Your task to perform on an android device: Search for seafood restaurants on Google Maps Image 0: 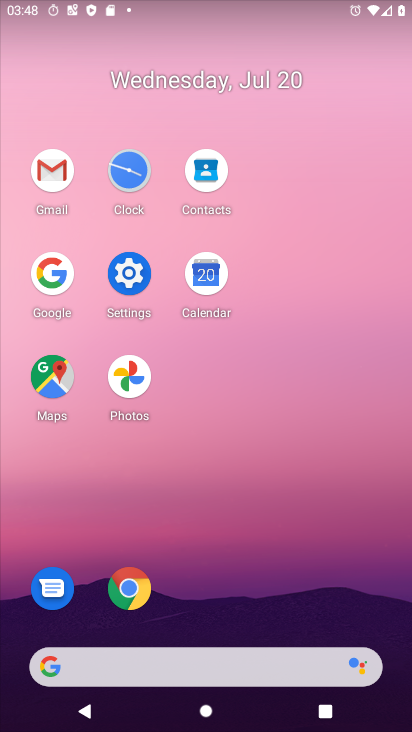
Step 0: click (55, 396)
Your task to perform on an android device: Search for seafood restaurants on Google Maps Image 1: 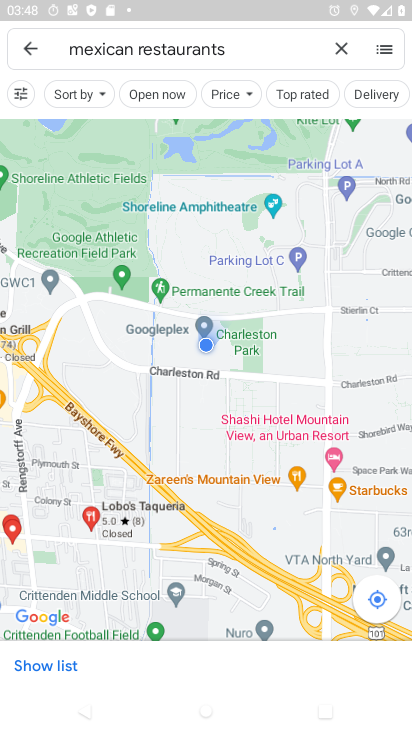
Step 1: click (347, 42)
Your task to perform on an android device: Search for seafood restaurants on Google Maps Image 2: 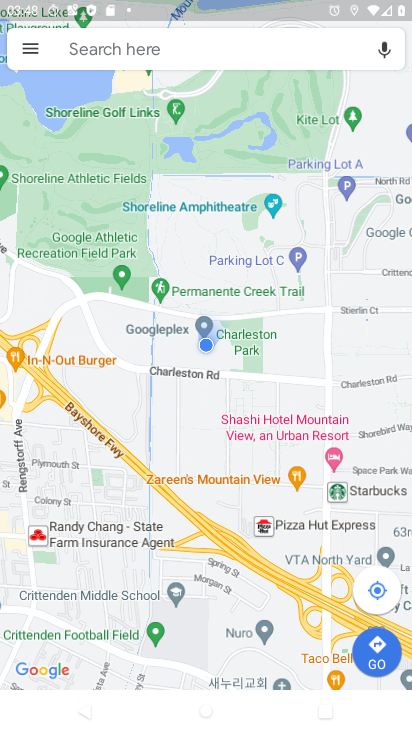
Step 2: click (281, 45)
Your task to perform on an android device: Search for seafood restaurants on Google Maps Image 3: 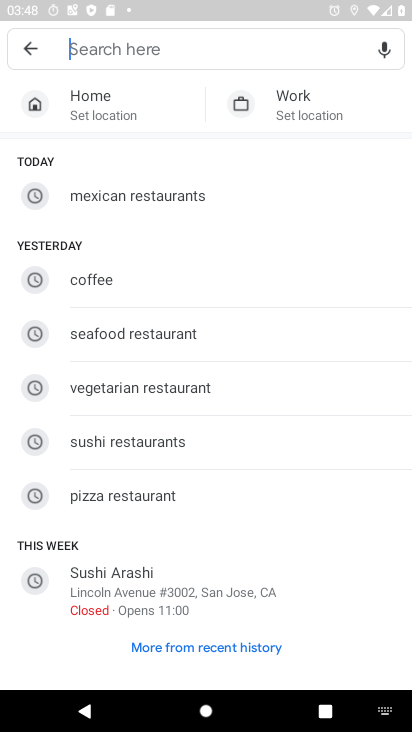
Step 3: click (176, 332)
Your task to perform on an android device: Search for seafood restaurants on Google Maps Image 4: 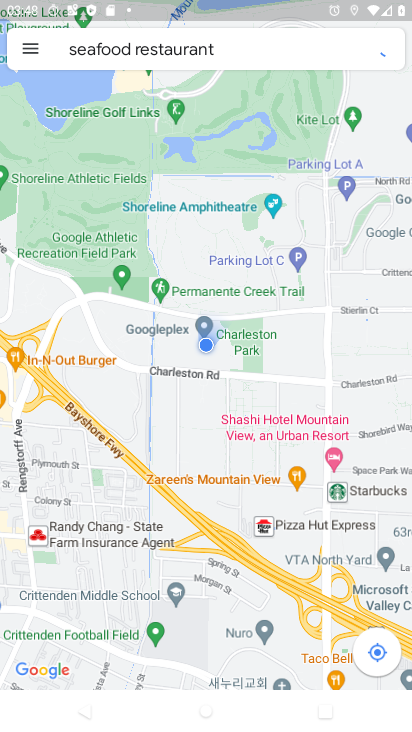
Step 4: task complete